Your task to perform on an android device: turn pop-ups off in chrome Image 0: 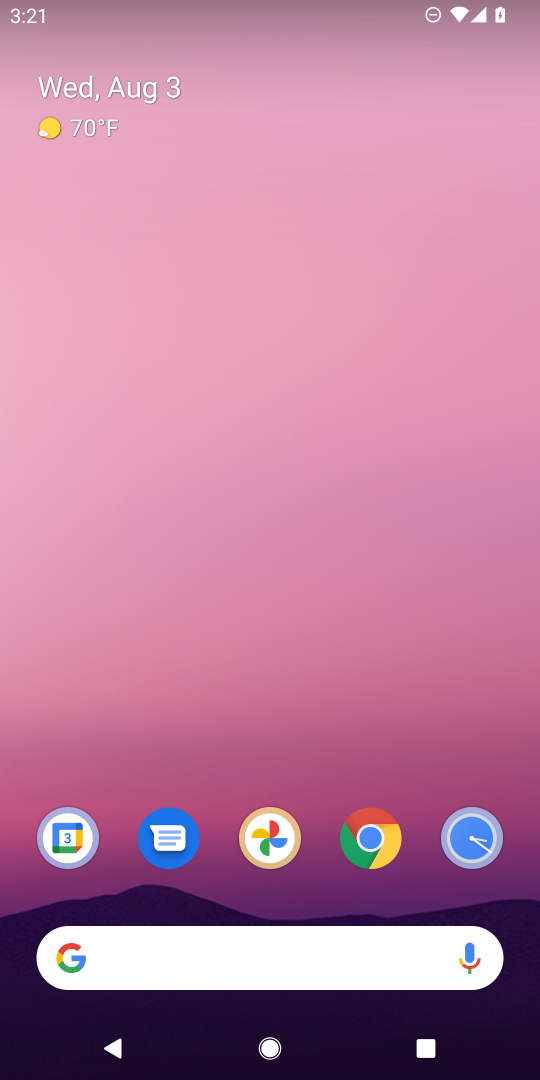
Step 0: click (357, 830)
Your task to perform on an android device: turn pop-ups off in chrome Image 1: 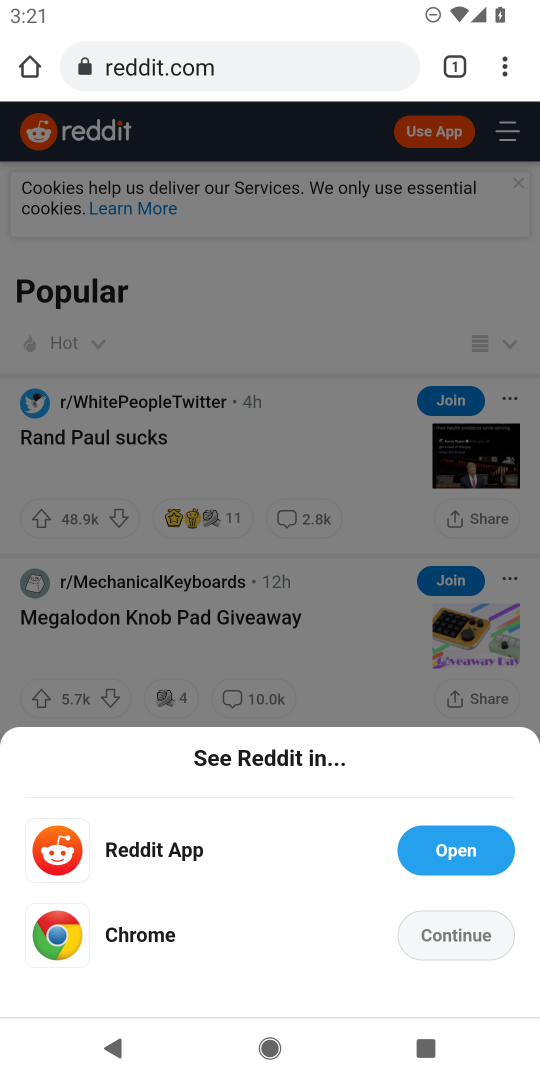
Step 1: click (493, 61)
Your task to perform on an android device: turn pop-ups off in chrome Image 2: 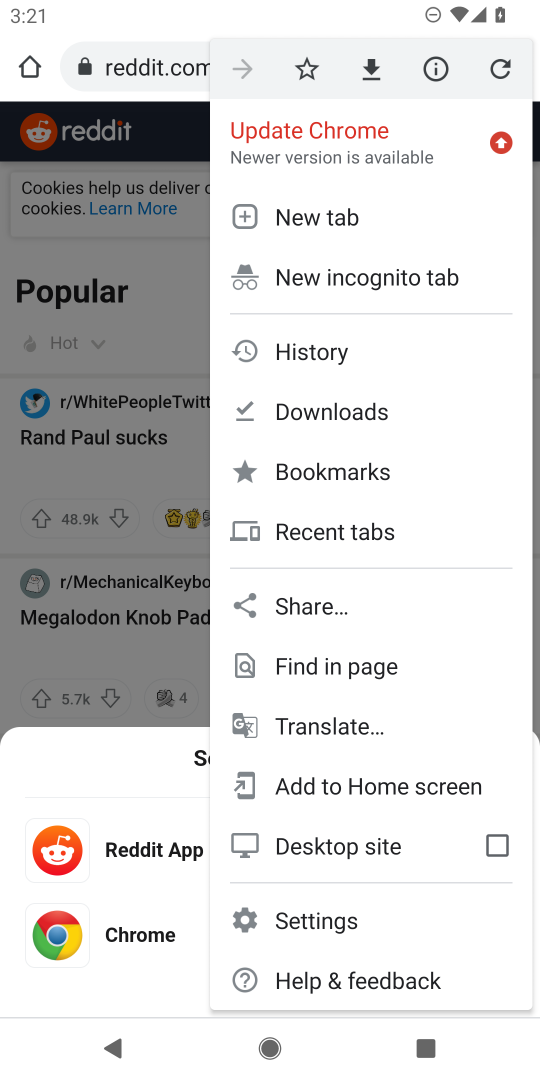
Step 2: click (338, 931)
Your task to perform on an android device: turn pop-ups off in chrome Image 3: 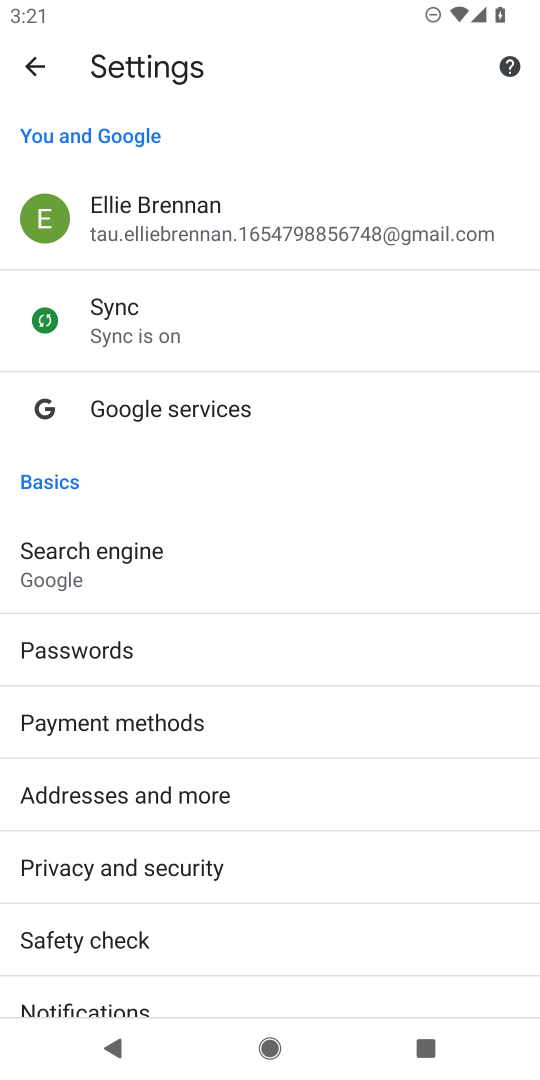
Step 3: drag from (208, 879) to (208, 654)
Your task to perform on an android device: turn pop-ups off in chrome Image 4: 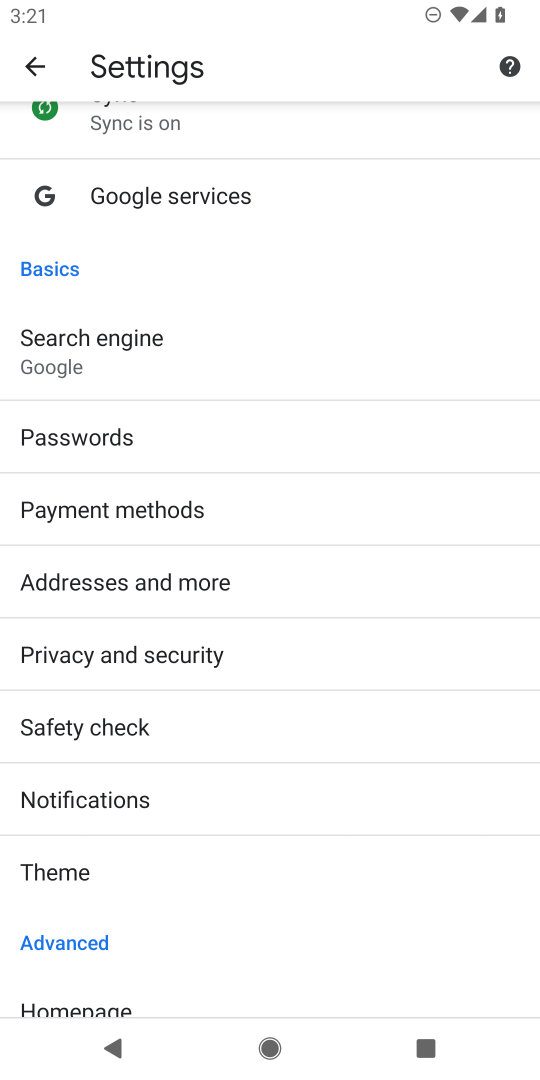
Step 4: drag from (206, 844) to (198, 390)
Your task to perform on an android device: turn pop-ups off in chrome Image 5: 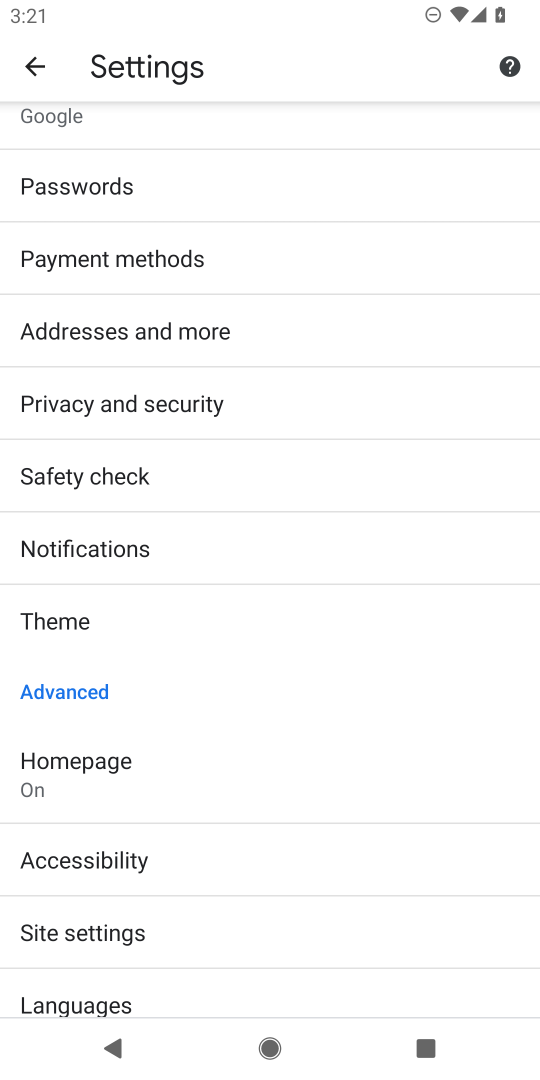
Step 5: click (152, 952)
Your task to perform on an android device: turn pop-ups off in chrome Image 6: 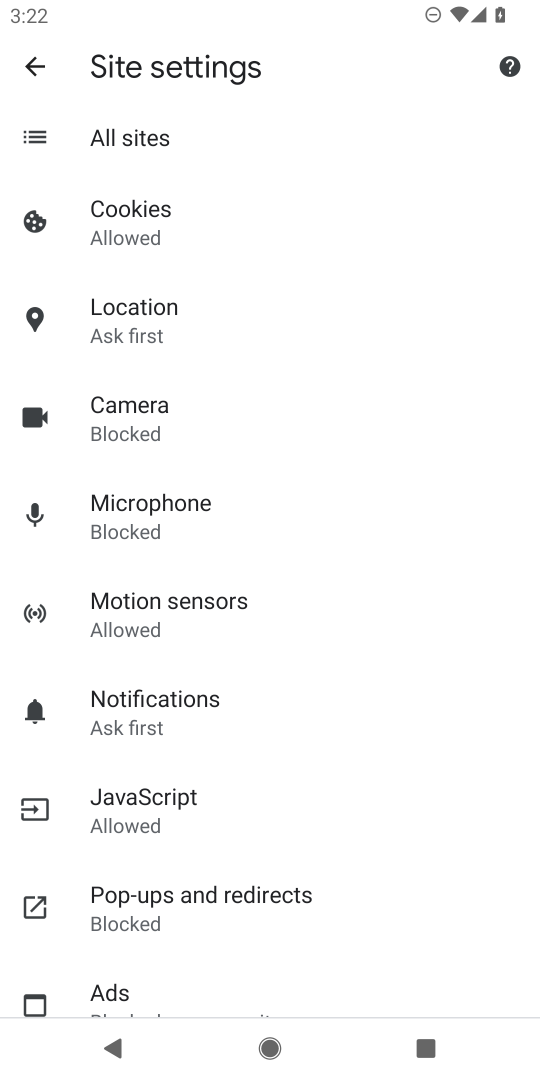
Step 6: click (184, 918)
Your task to perform on an android device: turn pop-ups off in chrome Image 7: 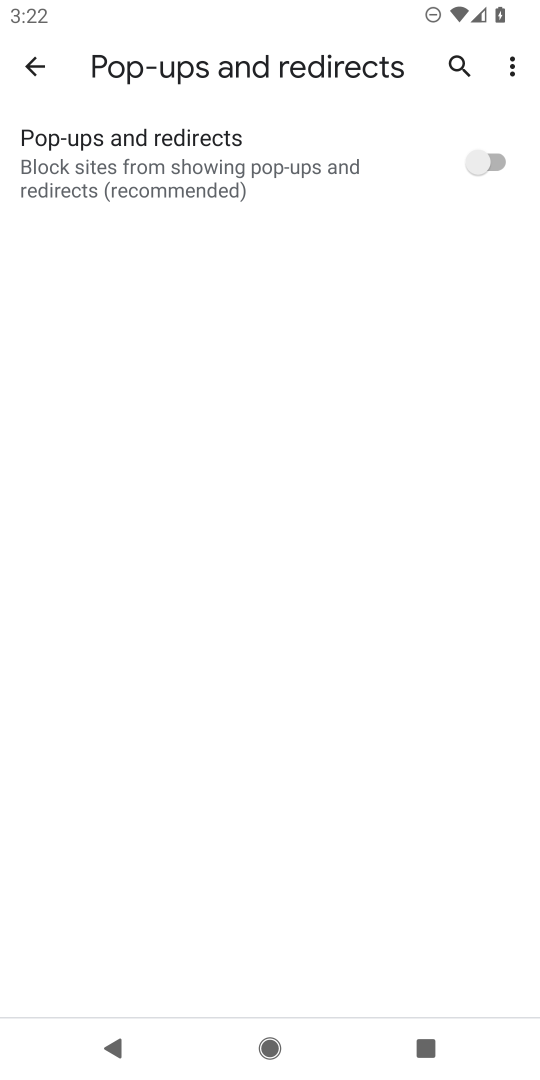
Step 7: task complete